Your task to perform on an android device: Open the Play Movies app and select the watchlist tab. Image 0: 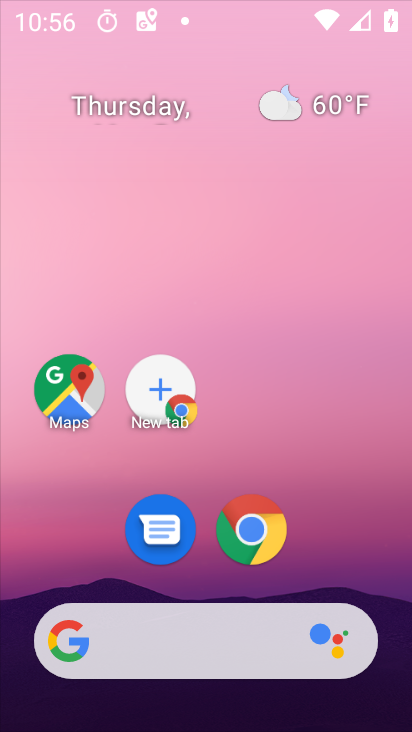
Step 0: drag from (337, 571) to (247, 152)
Your task to perform on an android device: Open the Play Movies app and select the watchlist tab. Image 1: 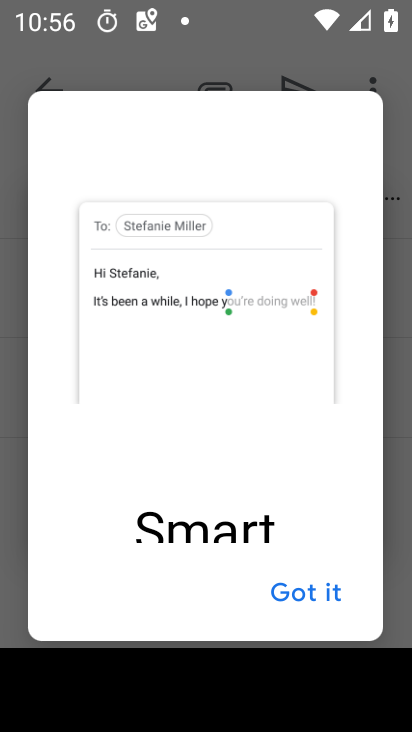
Step 1: click (259, 53)
Your task to perform on an android device: Open the Play Movies app and select the watchlist tab. Image 2: 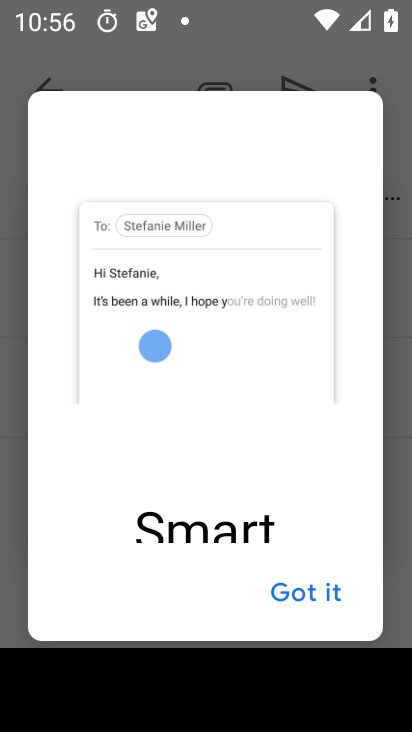
Step 2: click (260, 51)
Your task to perform on an android device: Open the Play Movies app and select the watchlist tab. Image 3: 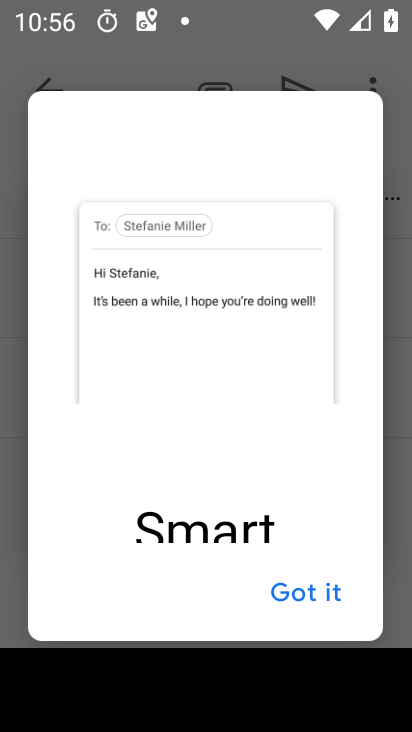
Step 3: click (270, 45)
Your task to perform on an android device: Open the Play Movies app and select the watchlist tab. Image 4: 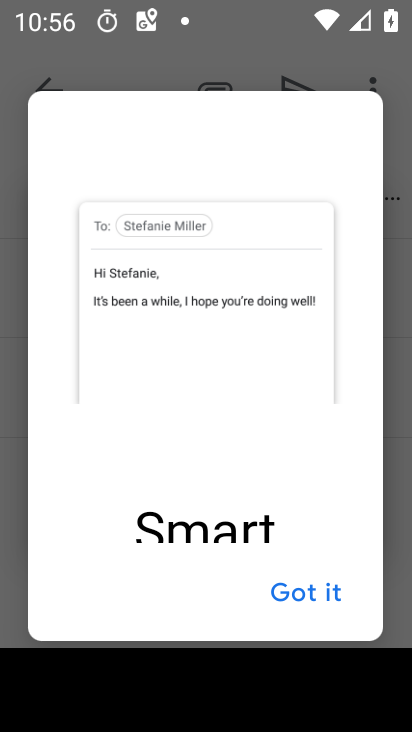
Step 4: click (270, 45)
Your task to perform on an android device: Open the Play Movies app and select the watchlist tab. Image 5: 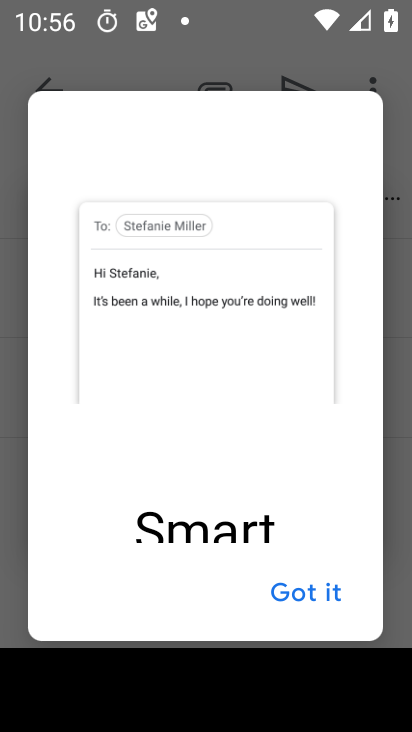
Step 5: click (270, 45)
Your task to perform on an android device: Open the Play Movies app and select the watchlist tab. Image 6: 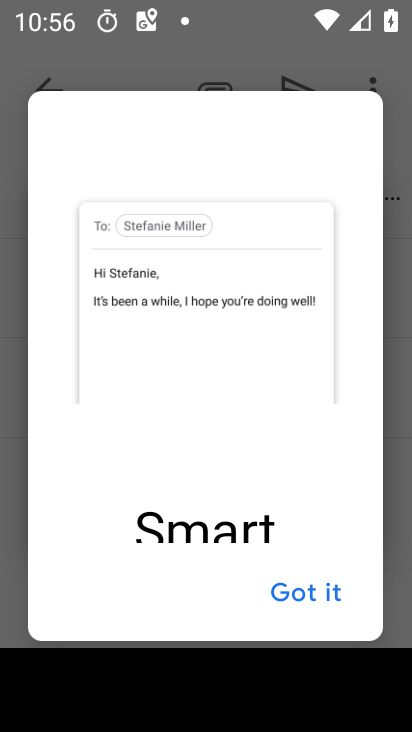
Step 6: click (315, 585)
Your task to perform on an android device: Open the Play Movies app and select the watchlist tab. Image 7: 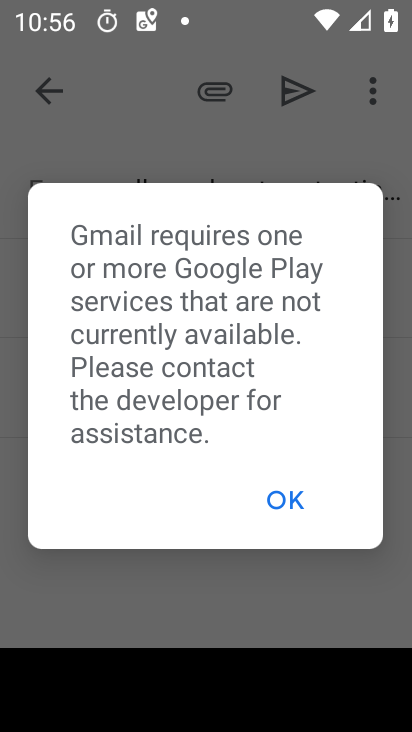
Step 7: click (303, 575)
Your task to perform on an android device: Open the Play Movies app and select the watchlist tab. Image 8: 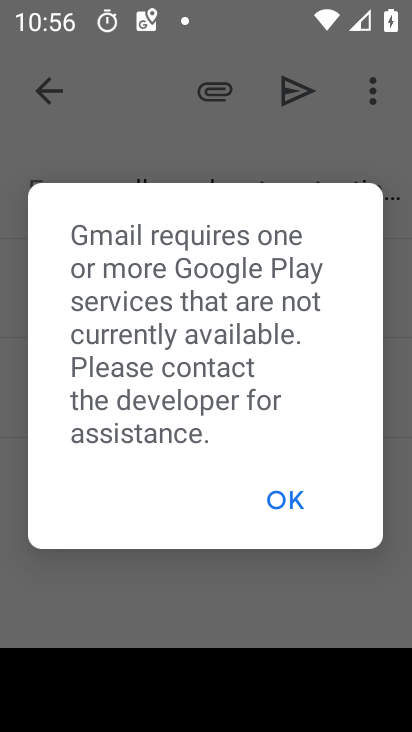
Step 8: click (288, 498)
Your task to perform on an android device: Open the Play Movies app and select the watchlist tab. Image 9: 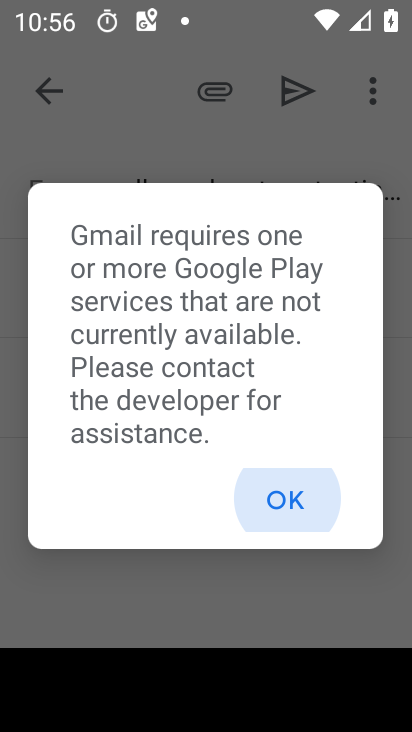
Step 9: click (288, 498)
Your task to perform on an android device: Open the Play Movies app and select the watchlist tab. Image 10: 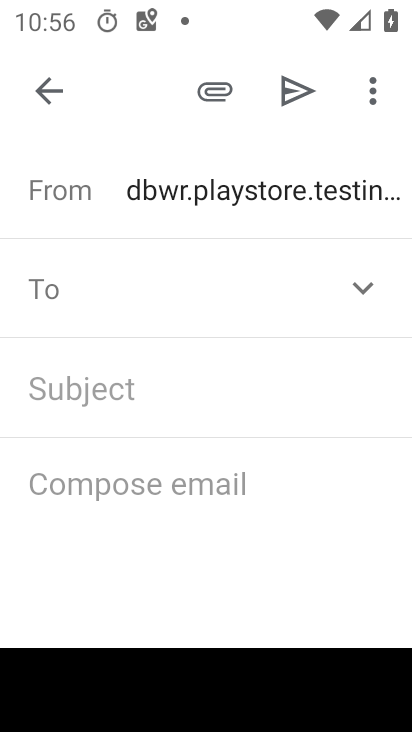
Step 10: click (288, 498)
Your task to perform on an android device: Open the Play Movies app and select the watchlist tab. Image 11: 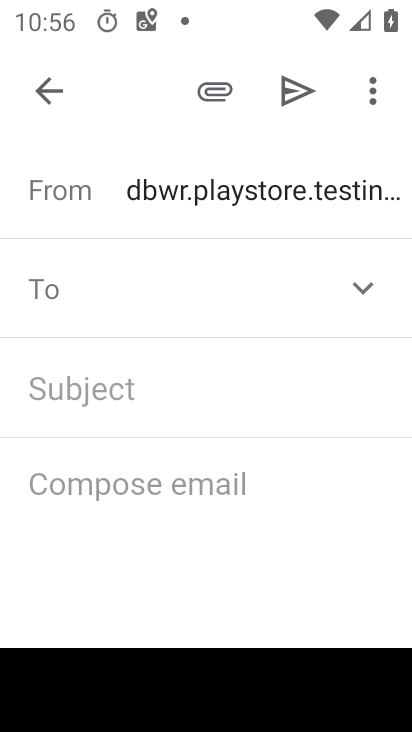
Step 11: click (42, 81)
Your task to perform on an android device: Open the Play Movies app and select the watchlist tab. Image 12: 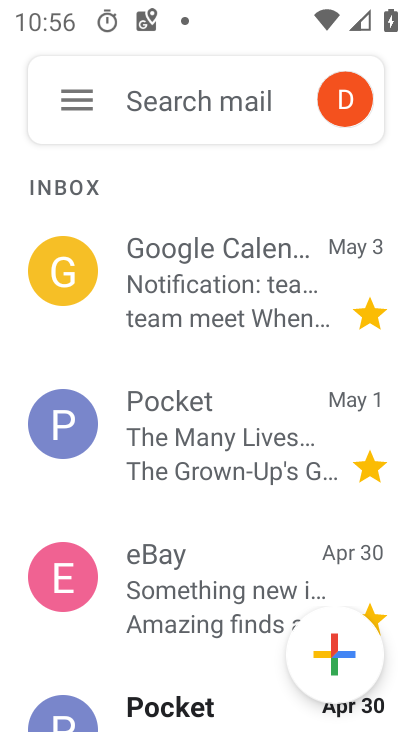
Step 12: press home button
Your task to perform on an android device: Open the Play Movies app and select the watchlist tab. Image 13: 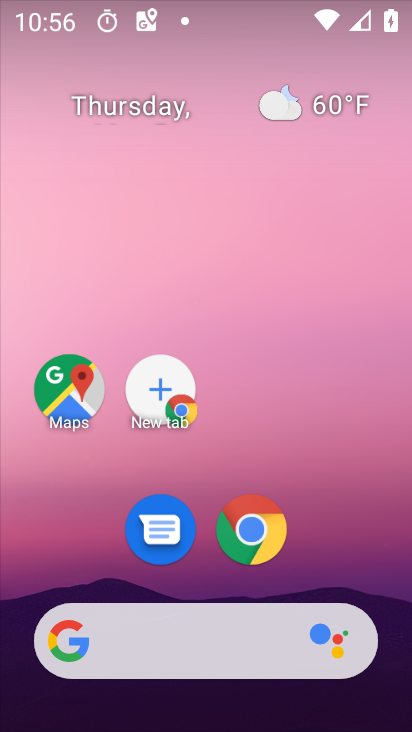
Step 13: drag from (353, 546) to (215, 67)
Your task to perform on an android device: Open the Play Movies app and select the watchlist tab. Image 14: 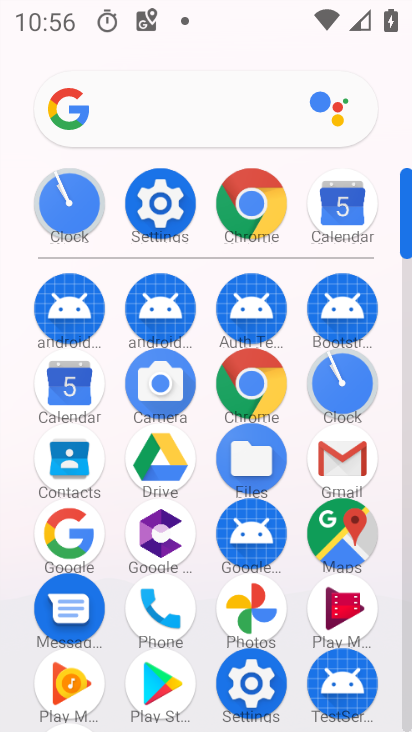
Step 14: click (68, 686)
Your task to perform on an android device: Open the Play Movies app and select the watchlist tab. Image 15: 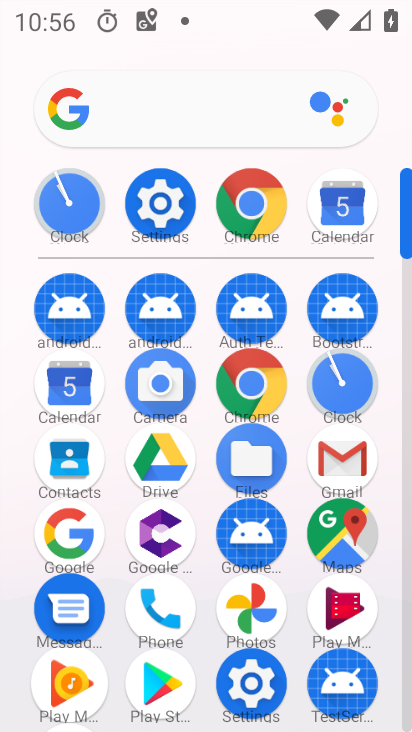
Step 15: click (68, 686)
Your task to perform on an android device: Open the Play Movies app and select the watchlist tab. Image 16: 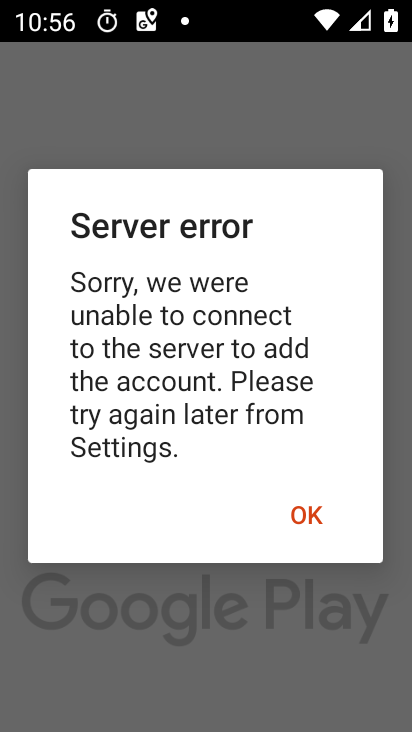
Step 16: click (308, 510)
Your task to perform on an android device: Open the Play Movies app and select the watchlist tab. Image 17: 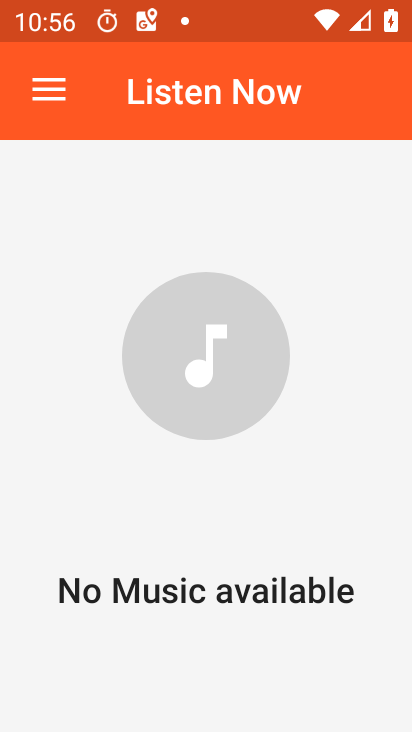
Step 17: press home button
Your task to perform on an android device: Open the Play Movies app and select the watchlist tab. Image 18: 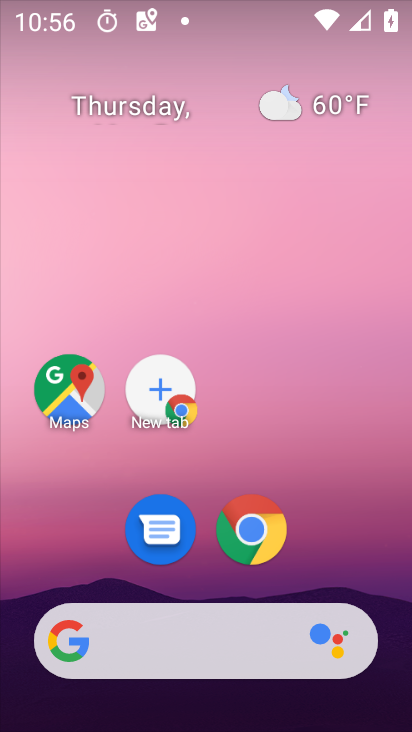
Step 18: drag from (341, 575) to (187, 77)
Your task to perform on an android device: Open the Play Movies app and select the watchlist tab. Image 19: 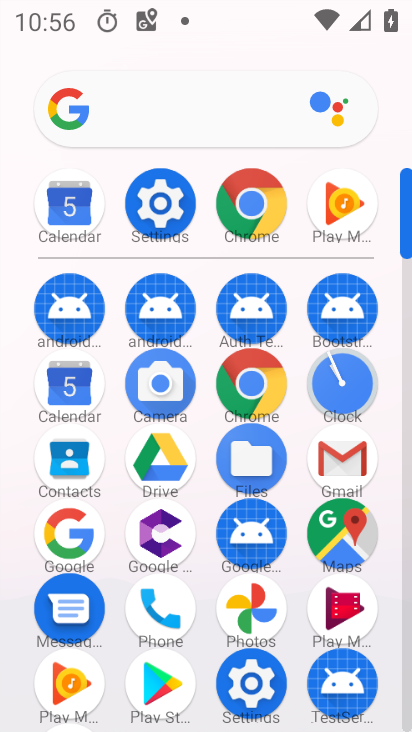
Step 19: click (325, 600)
Your task to perform on an android device: Open the Play Movies app and select the watchlist tab. Image 20: 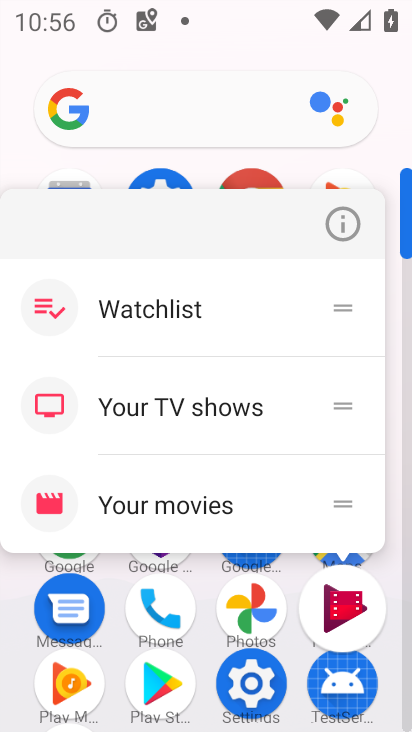
Step 20: click (325, 600)
Your task to perform on an android device: Open the Play Movies app and select the watchlist tab. Image 21: 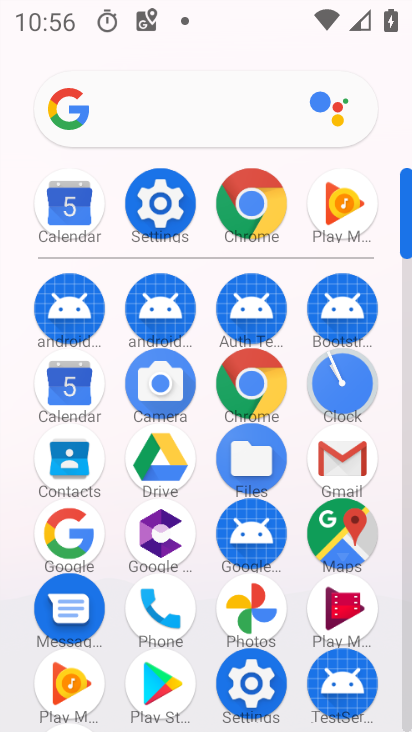
Step 21: click (327, 600)
Your task to perform on an android device: Open the Play Movies app and select the watchlist tab. Image 22: 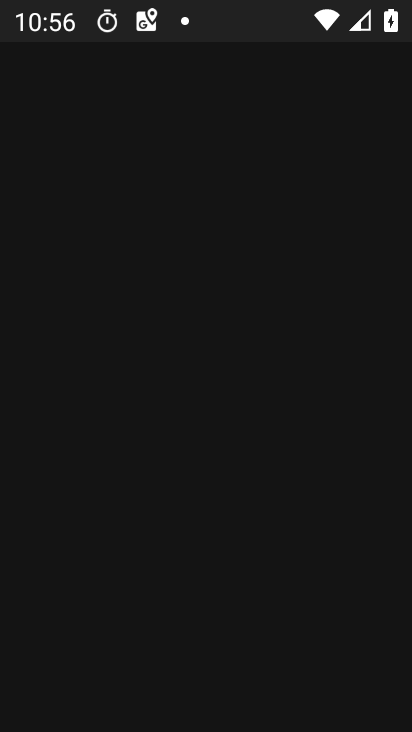
Step 22: click (328, 600)
Your task to perform on an android device: Open the Play Movies app and select the watchlist tab. Image 23: 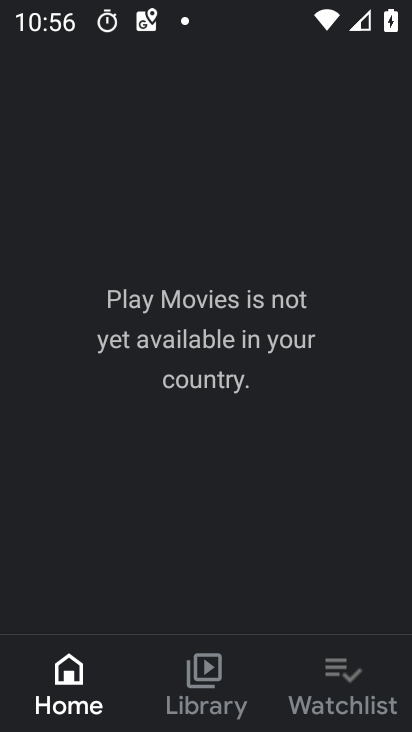
Step 23: click (322, 681)
Your task to perform on an android device: Open the Play Movies app and select the watchlist tab. Image 24: 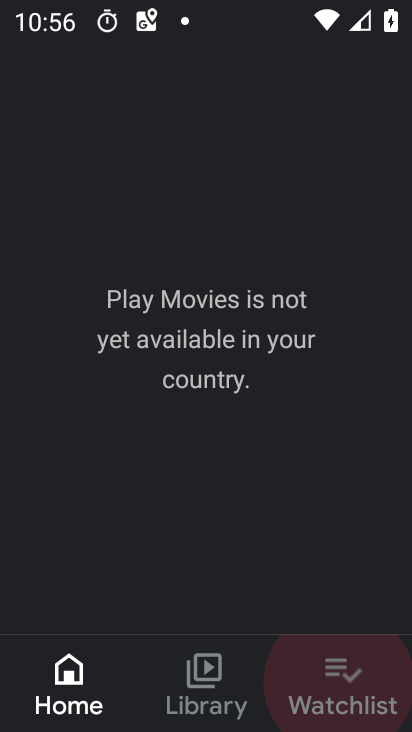
Step 24: click (324, 694)
Your task to perform on an android device: Open the Play Movies app and select the watchlist tab. Image 25: 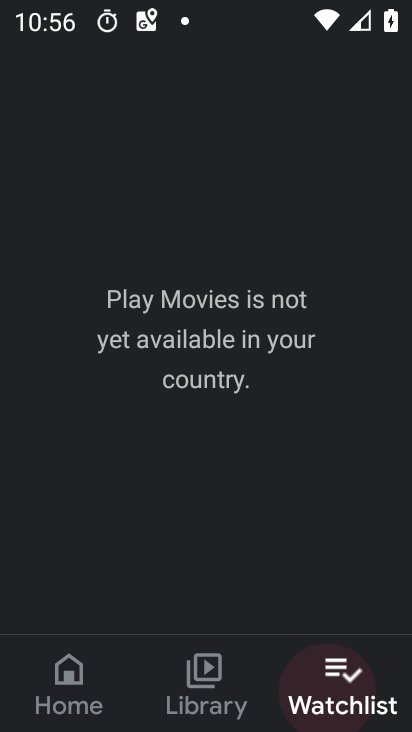
Step 25: click (324, 690)
Your task to perform on an android device: Open the Play Movies app and select the watchlist tab. Image 26: 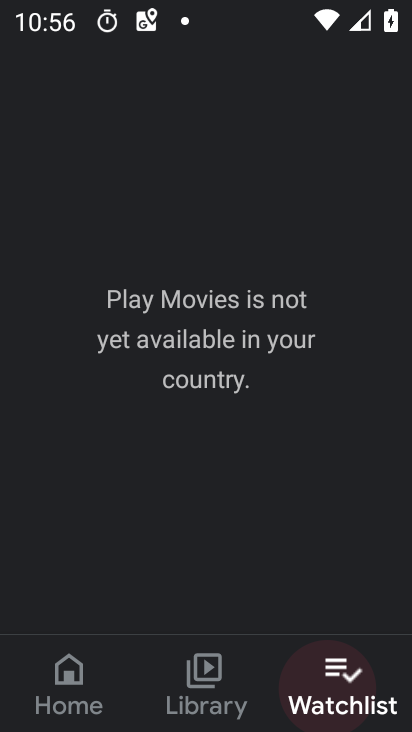
Step 26: click (327, 688)
Your task to perform on an android device: Open the Play Movies app and select the watchlist tab. Image 27: 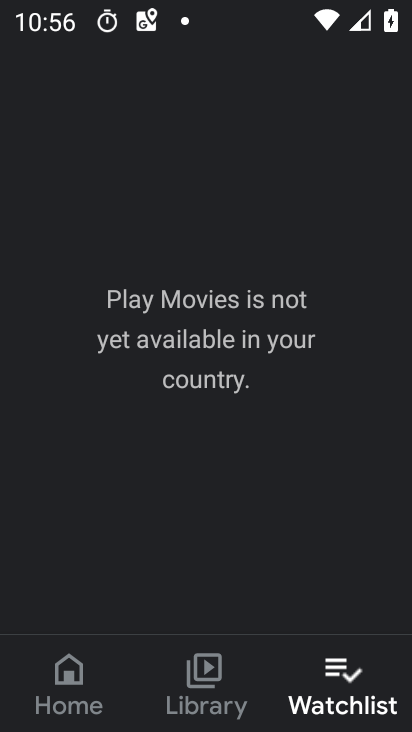
Step 27: task complete